Your task to perform on an android device: turn off sleep mode Image 0: 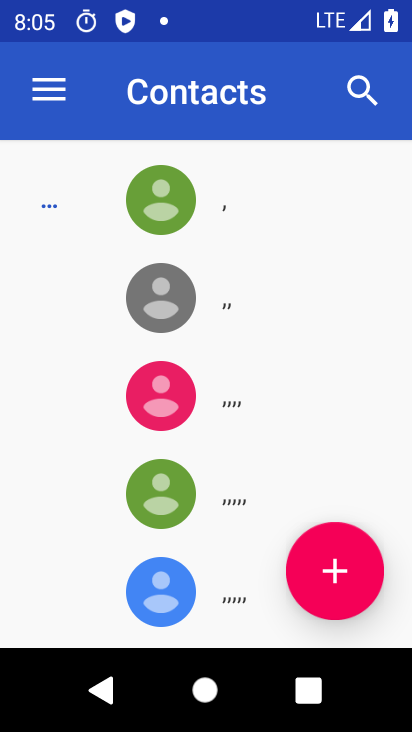
Step 0: press home button
Your task to perform on an android device: turn off sleep mode Image 1: 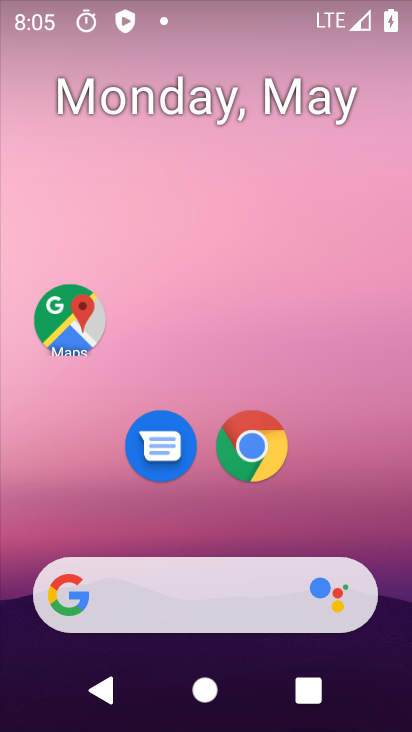
Step 1: drag from (363, 537) to (286, 0)
Your task to perform on an android device: turn off sleep mode Image 2: 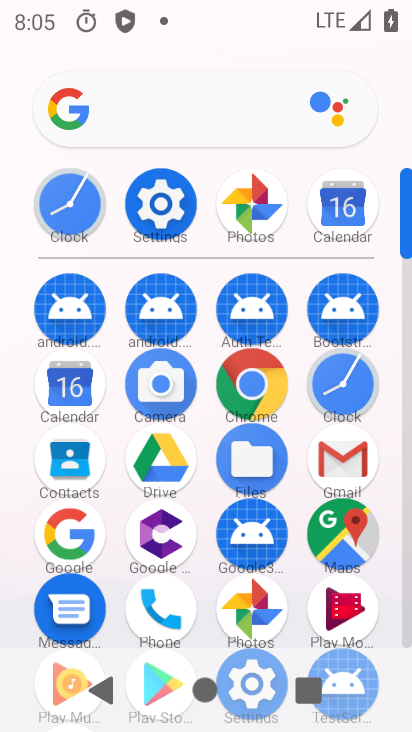
Step 2: click (164, 196)
Your task to perform on an android device: turn off sleep mode Image 3: 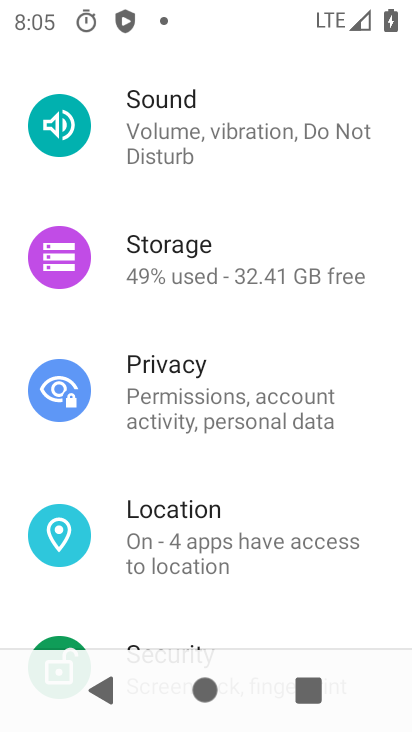
Step 3: drag from (273, 447) to (276, 133)
Your task to perform on an android device: turn off sleep mode Image 4: 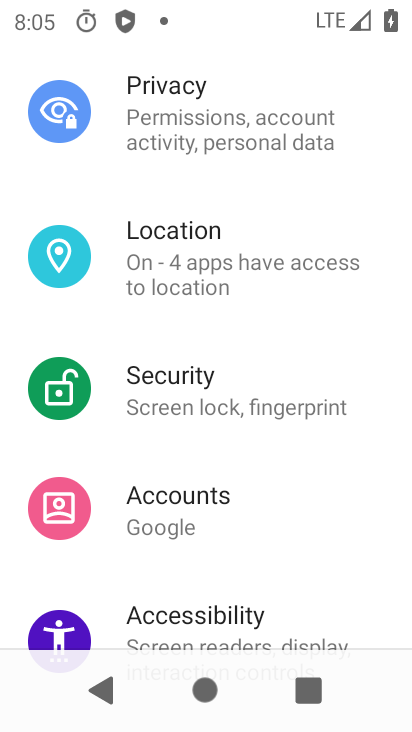
Step 4: drag from (276, 133) to (291, 720)
Your task to perform on an android device: turn off sleep mode Image 5: 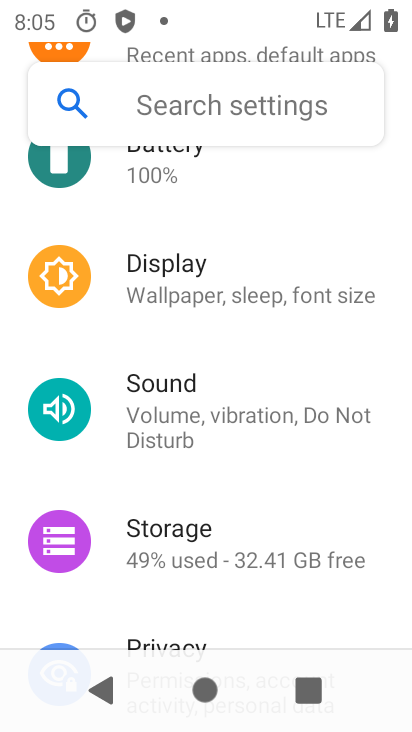
Step 5: click (146, 302)
Your task to perform on an android device: turn off sleep mode Image 6: 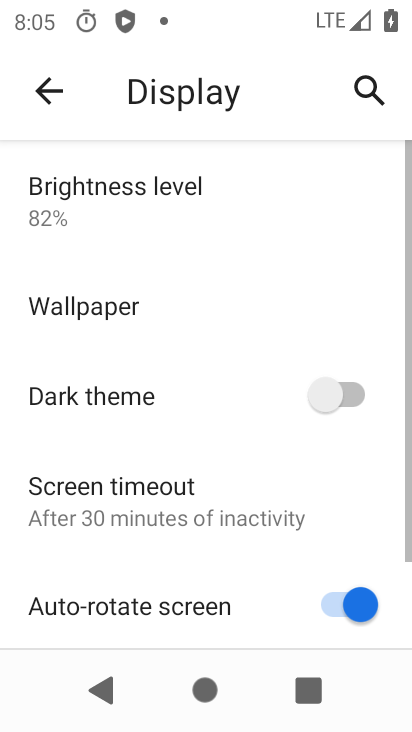
Step 6: drag from (154, 560) to (155, 197)
Your task to perform on an android device: turn off sleep mode Image 7: 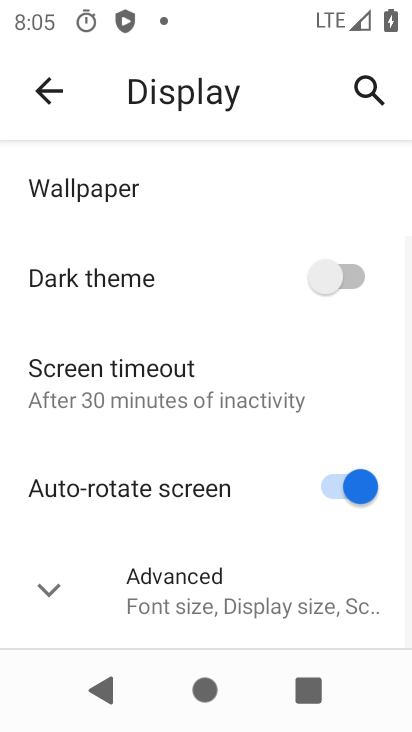
Step 7: click (45, 601)
Your task to perform on an android device: turn off sleep mode Image 8: 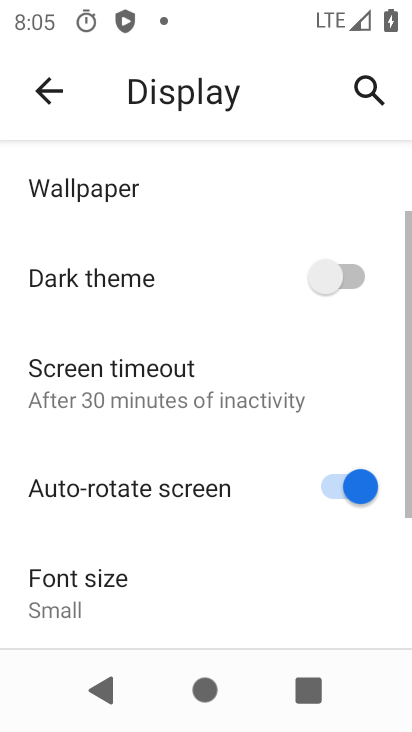
Step 8: task complete